Your task to perform on an android device: Open battery settings Image 0: 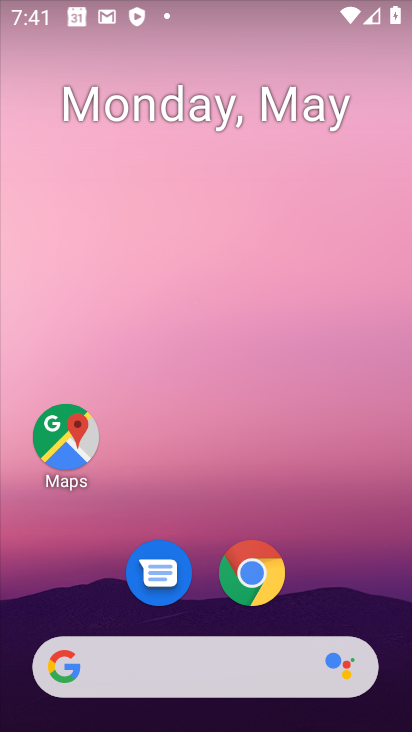
Step 0: drag from (184, 703) to (198, 195)
Your task to perform on an android device: Open battery settings Image 1: 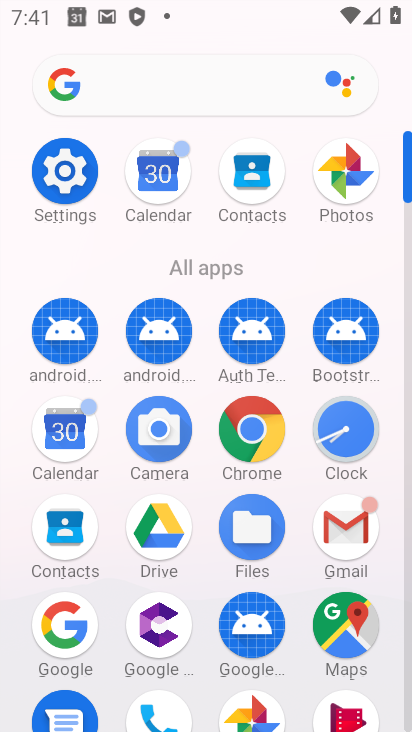
Step 1: click (65, 193)
Your task to perform on an android device: Open battery settings Image 2: 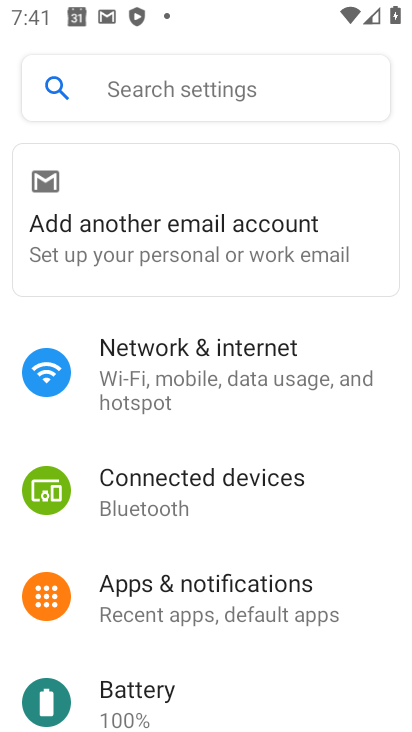
Step 2: drag from (167, 538) to (206, 355)
Your task to perform on an android device: Open battery settings Image 3: 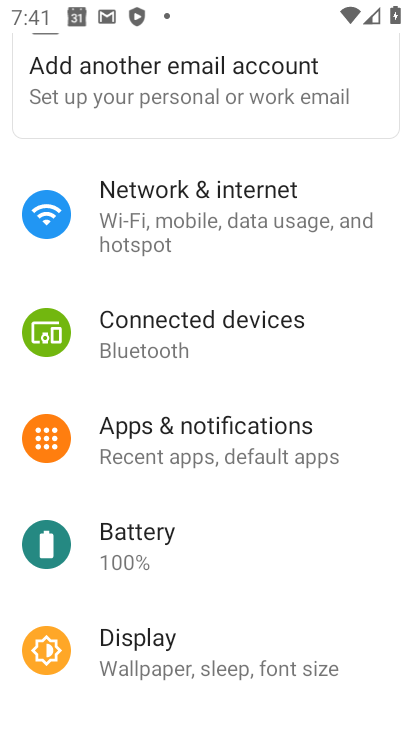
Step 3: click (158, 559)
Your task to perform on an android device: Open battery settings Image 4: 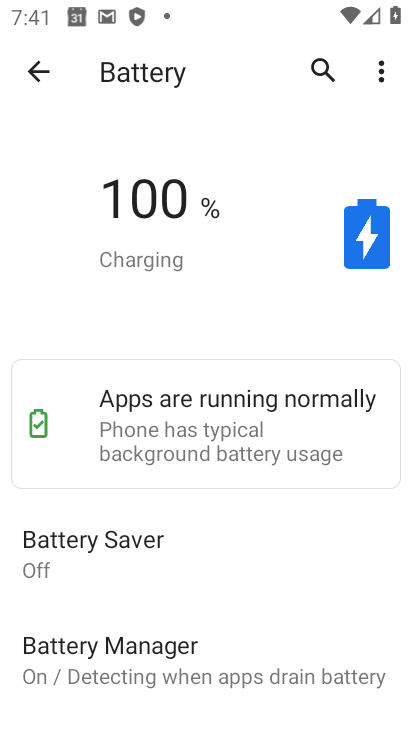
Step 4: task complete